Your task to perform on an android device: open app "Messages" (install if not already installed), go to login, and select forgot password Image 0: 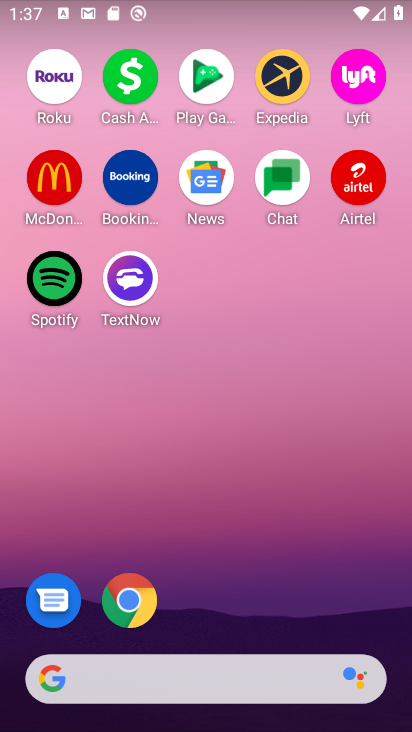
Step 0: drag from (289, 595) to (266, 55)
Your task to perform on an android device: open app "Messages" (install if not already installed), go to login, and select forgot password Image 1: 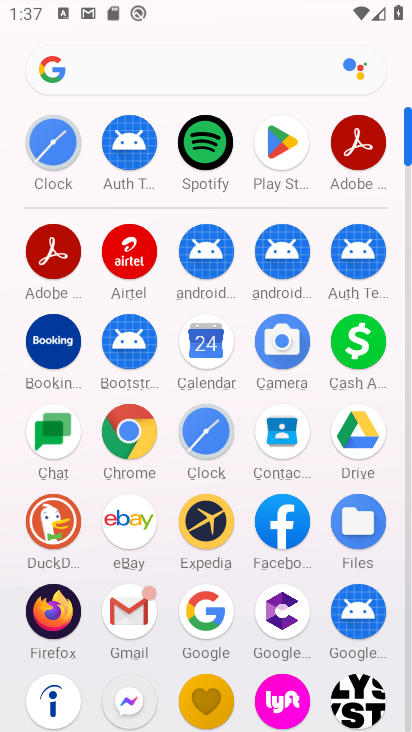
Step 1: click (278, 183)
Your task to perform on an android device: open app "Messages" (install if not already installed), go to login, and select forgot password Image 2: 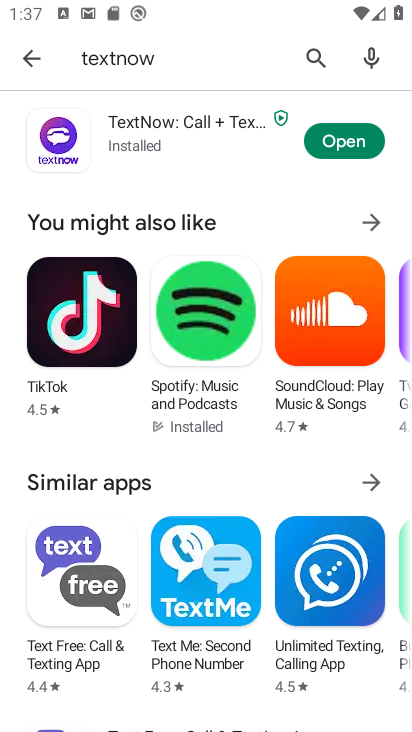
Step 2: click (307, 77)
Your task to perform on an android device: open app "Messages" (install if not already installed), go to login, and select forgot password Image 3: 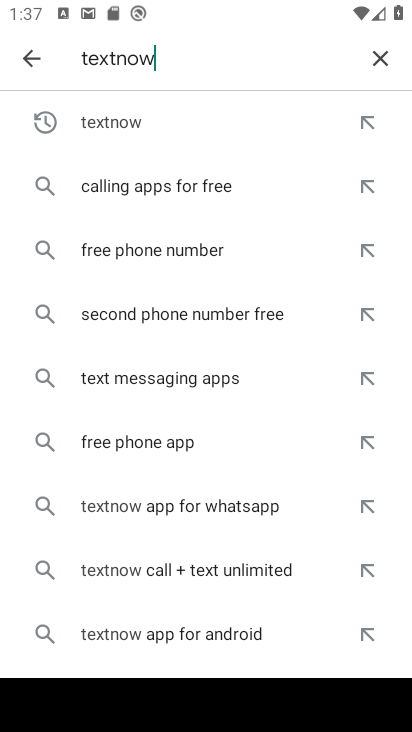
Step 3: click (385, 69)
Your task to perform on an android device: open app "Messages" (install if not already installed), go to login, and select forgot password Image 4: 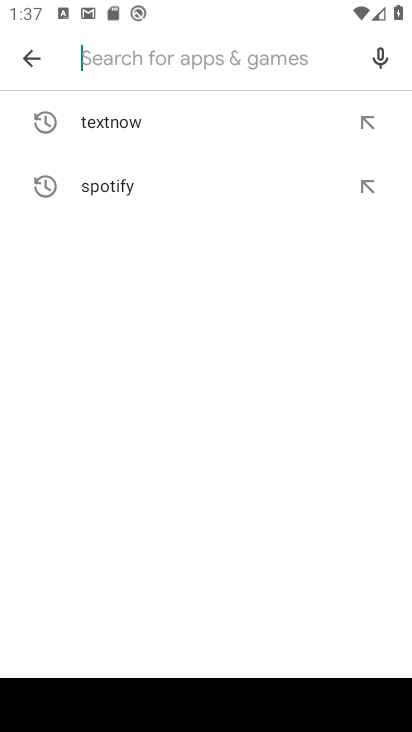
Step 4: type "message"
Your task to perform on an android device: open app "Messages" (install if not already installed), go to login, and select forgot password Image 5: 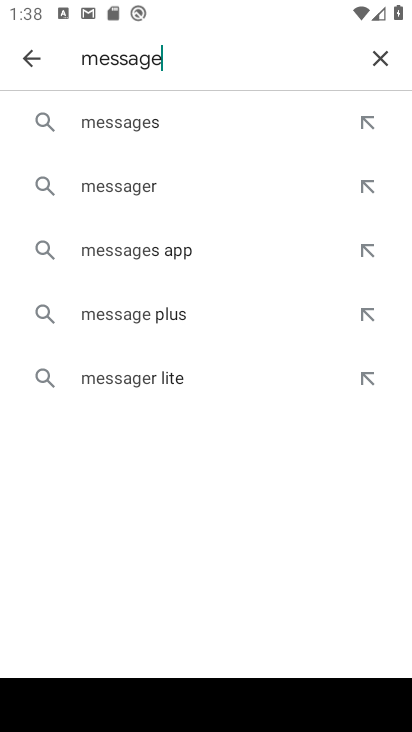
Step 5: click (193, 119)
Your task to perform on an android device: open app "Messages" (install if not already installed), go to login, and select forgot password Image 6: 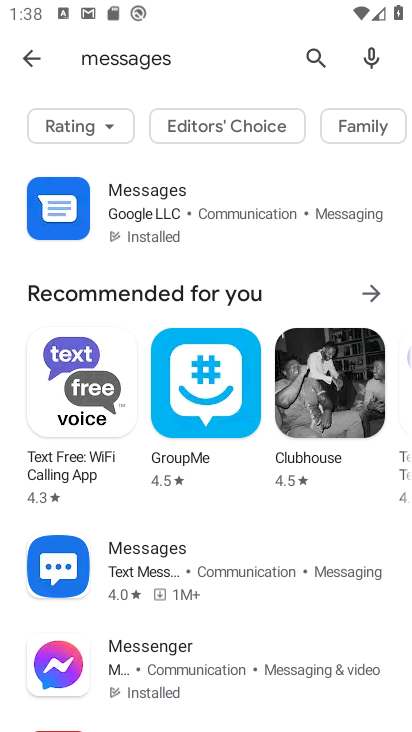
Step 6: click (217, 215)
Your task to perform on an android device: open app "Messages" (install if not already installed), go to login, and select forgot password Image 7: 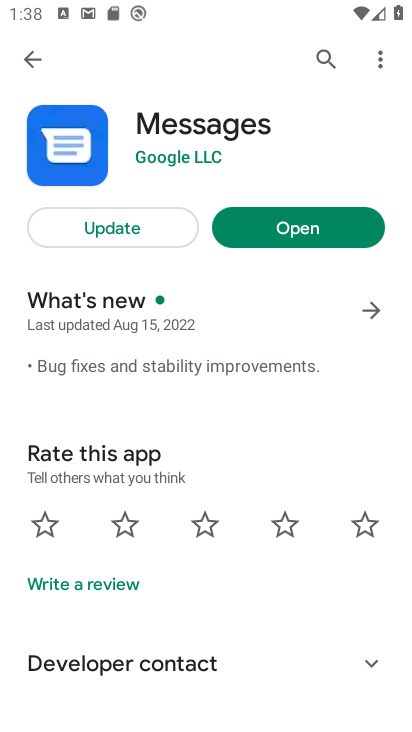
Step 7: task complete